Your task to perform on an android device: uninstall "Grab" Image 0: 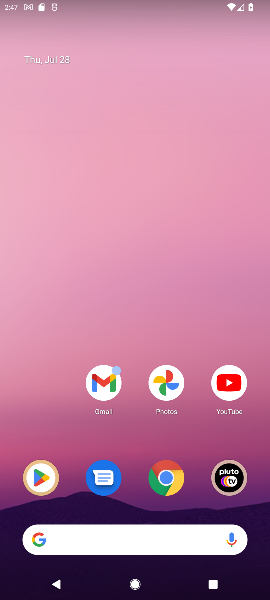
Step 0: press home button
Your task to perform on an android device: uninstall "Grab" Image 1: 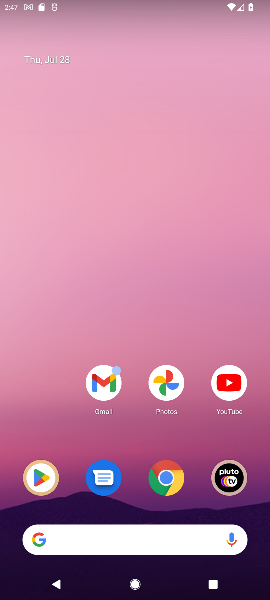
Step 1: click (40, 476)
Your task to perform on an android device: uninstall "Grab" Image 2: 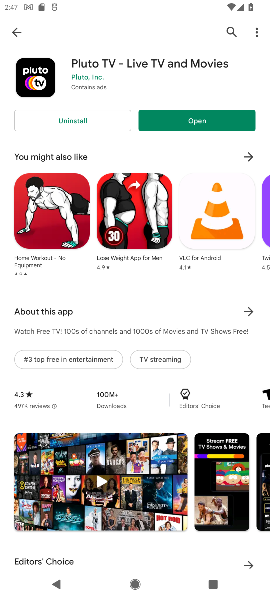
Step 2: click (9, 38)
Your task to perform on an android device: uninstall "Grab" Image 3: 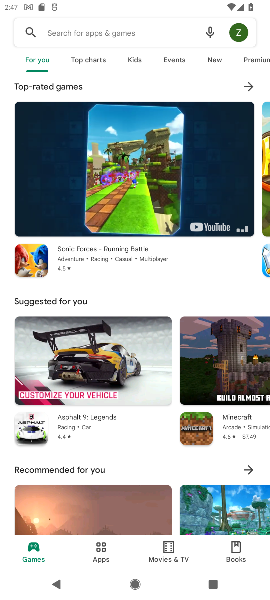
Step 3: type "Grab"
Your task to perform on an android device: uninstall "Grab" Image 4: 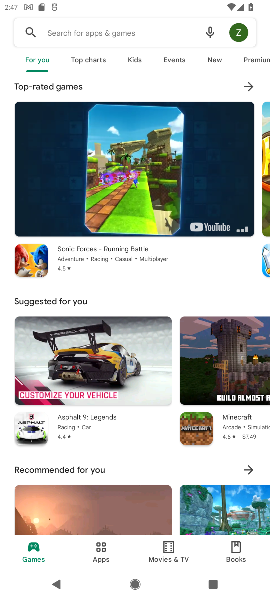
Step 4: click (110, 32)
Your task to perform on an android device: uninstall "Grab" Image 5: 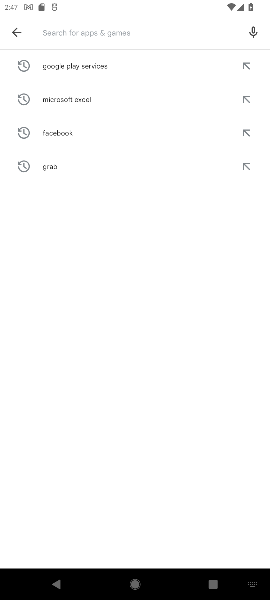
Step 5: click (64, 169)
Your task to perform on an android device: uninstall "Grab" Image 6: 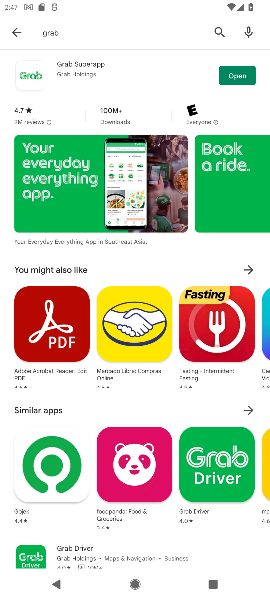
Step 6: press home button
Your task to perform on an android device: uninstall "Grab" Image 7: 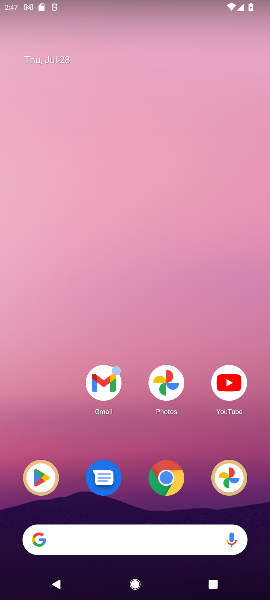
Step 7: drag from (180, 275) to (187, 97)
Your task to perform on an android device: uninstall "Grab" Image 8: 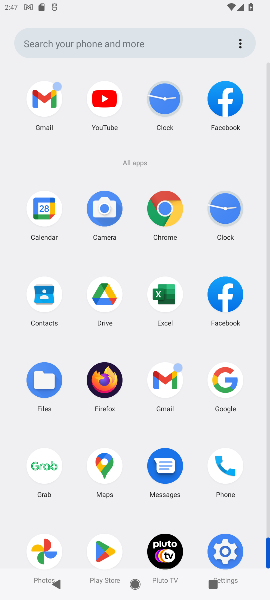
Step 8: click (41, 463)
Your task to perform on an android device: uninstall "Grab" Image 9: 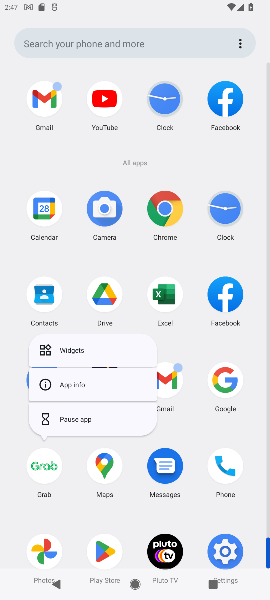
Step 9: click (42, 385)
Your task to perform on an android device: uninstall "Grab" Image 10: 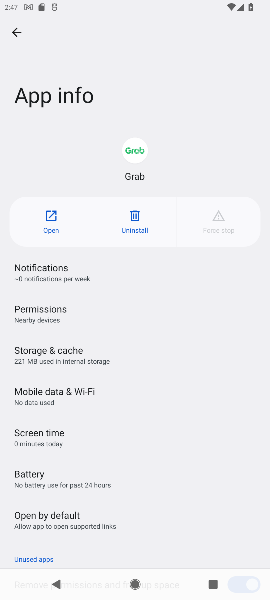
Step 10: click (128, 217)
Your task to perform on an android device: uninstall "Grab" Image 11: 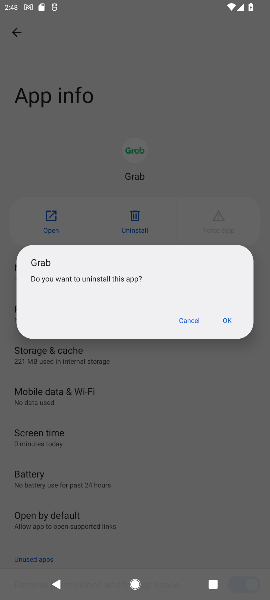
Step 11: click (227, 316)
Your task to perform on an android device: uninstall "Grab" Image 12: 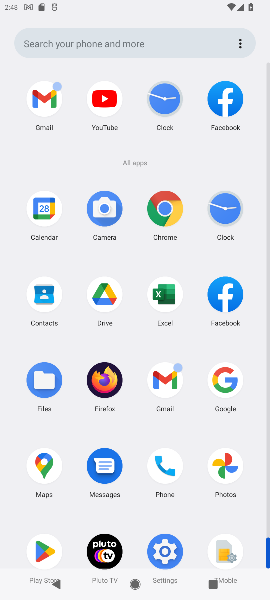
Step 12: task complete